Your task to perform on an android device: Open network settings Image 0: 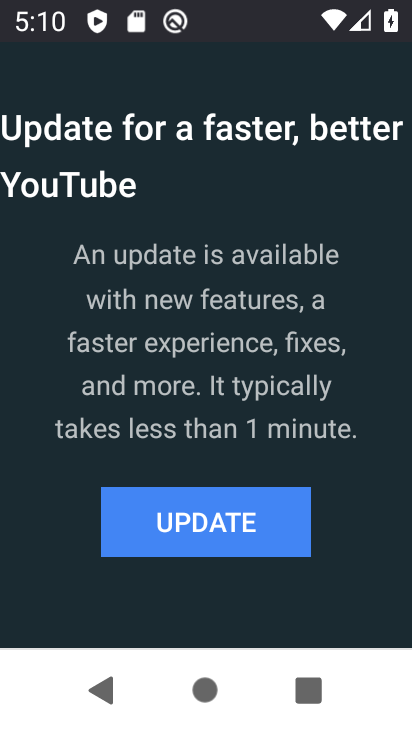
Step 0: press back button
Your task to perform on an android device: Open network settings Image 1: 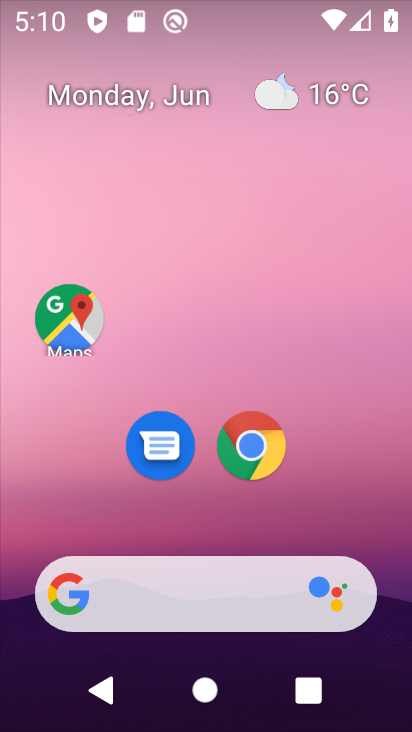
Step 1: drag from (336, 510) to (283, 53)
Your task to perform on an android device: Open network settings Image 2: 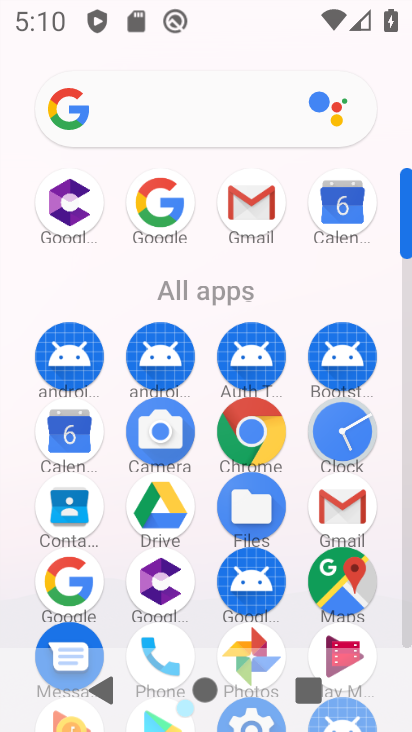
Step 2: drag from (109, 298) to (143, 107)
Your task to perform on an android device: Open network settings Image 3: 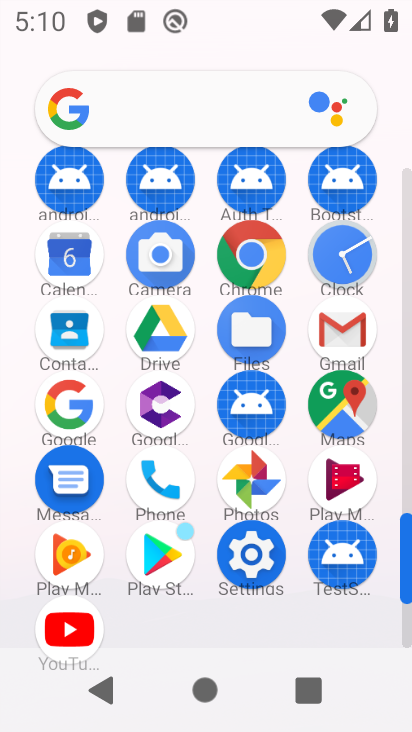
Step 3: click (253, 554)
Your task to perform on an android device: Open network settings Image 4: 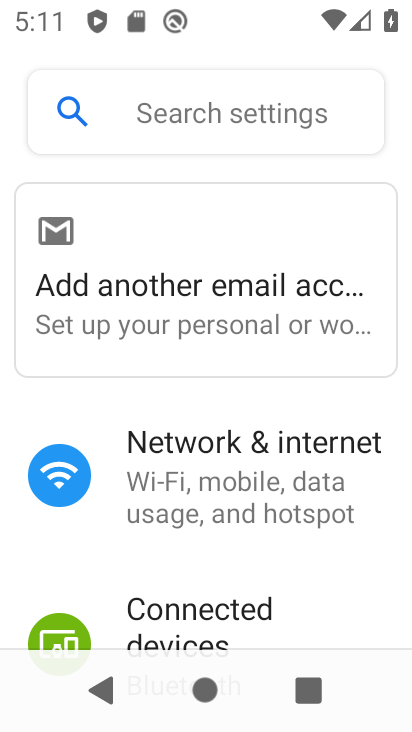
Step 4: click (219, 453)
Your task to perform on an android device: Open network settings Image 5: 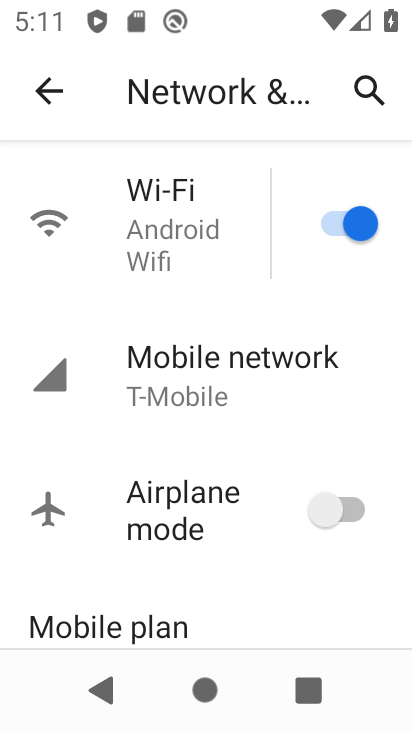
Step 5: click (202, 201)
Your task to perform on an android device: Open network settings Image 6: 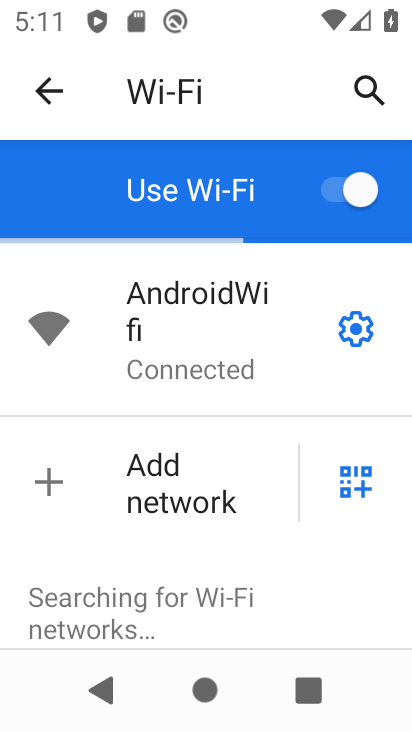
Step 6: task complete